Your task to perform on an android device: Open Yahoo.com Image 0: 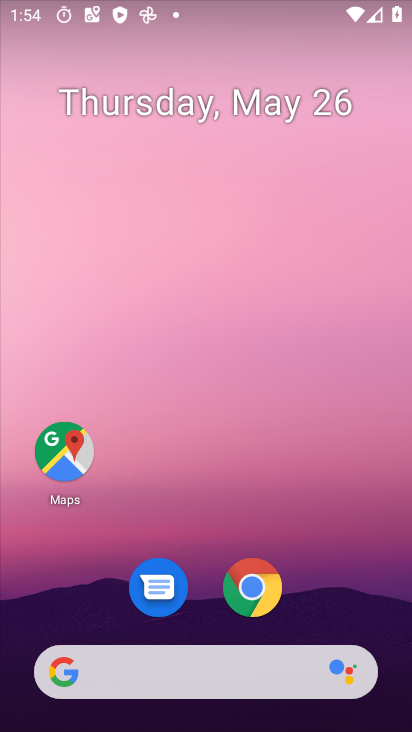
Step 0: drag from (377, 613) to (375, 200)
Your task to perform on an android device: Open Yahoo.com Image 1: 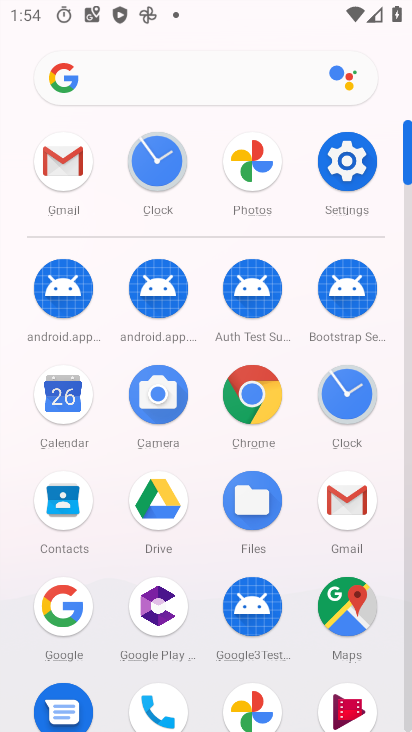
Step 1: click (262, 405)
Your task to perform on an android device: Open Yahoo.com Image 2: 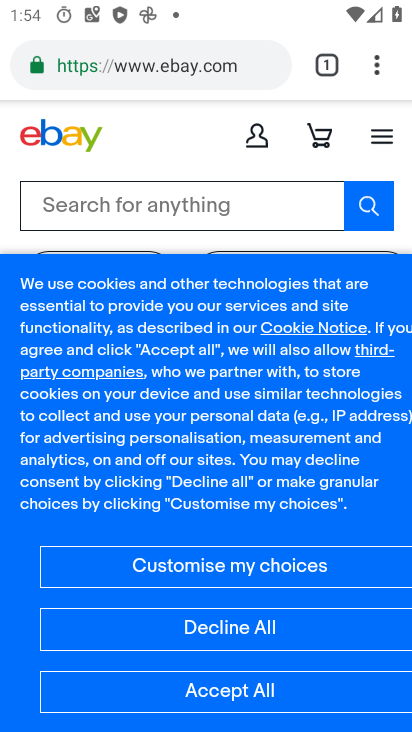
Step 2: task complete